Your task to perform on an android device: Go to accessibility settings Image 0: 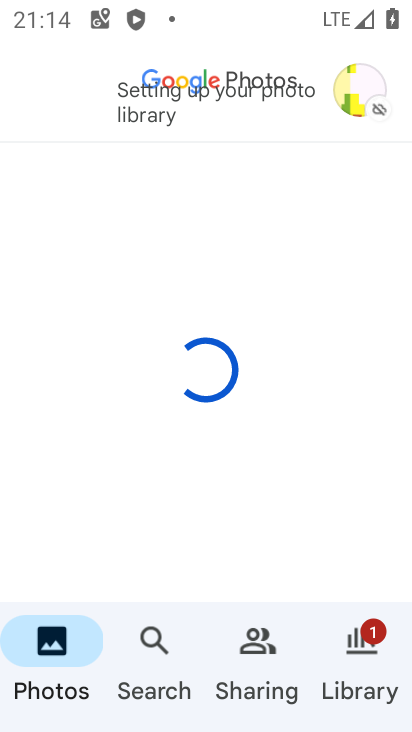
Step 0: press home button
Your task to perform on an android device: Go to accessibility settings Image 1: 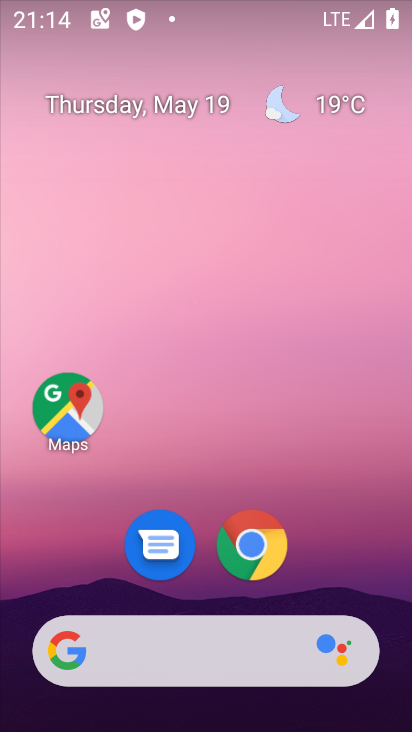
Step 1: drag from (343, 553) to (329, 204)
Your task to perform on an android device: Go to accessibility settings Image 2: 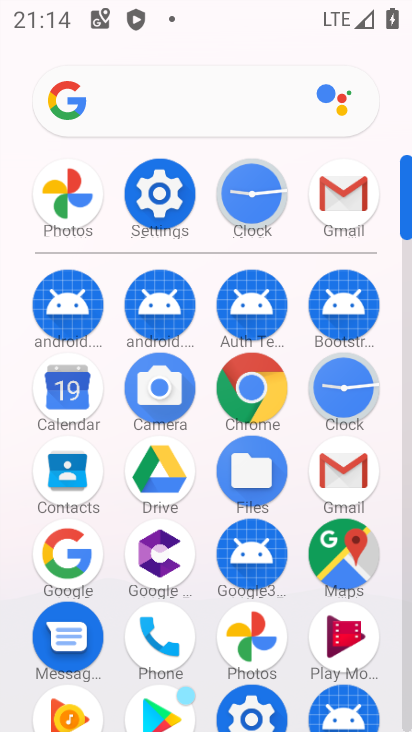
Step 2: click (155, 226)
Your task to perform on an android device: Go to accessibility settings Image 3: 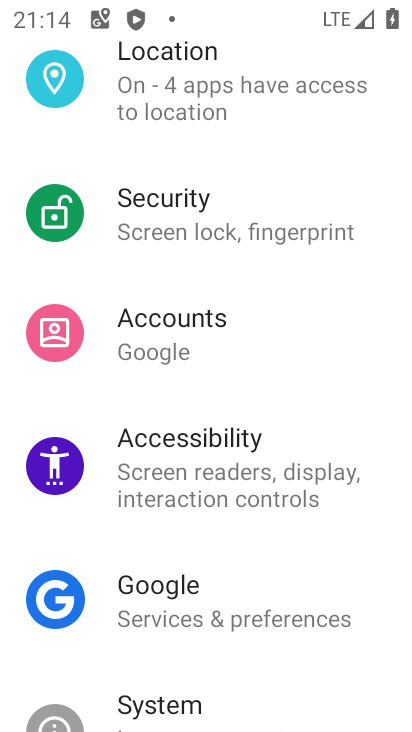
Step 3: drag from (158, 645) to (175, 439)
Your task to perform on an android device: Go to accessibility settings Image 4: 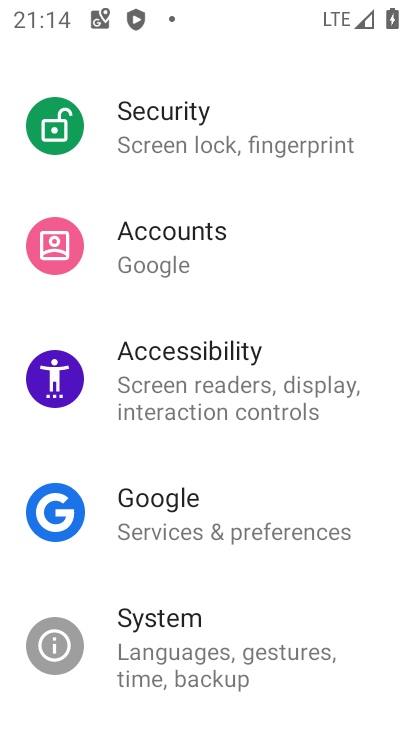
Step 4: click (223, 382)
Your task to perform on an android device: Go to accessibility settings Image 5: 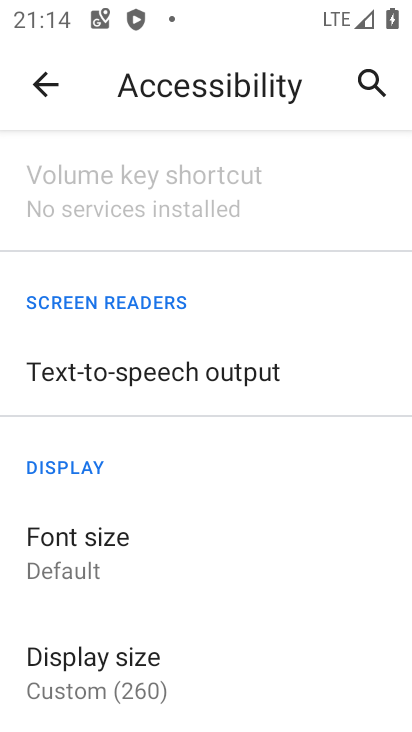
Step 5: task complete